Your task to perform on an android device: Is it going to rain tomorrow? Image 0: 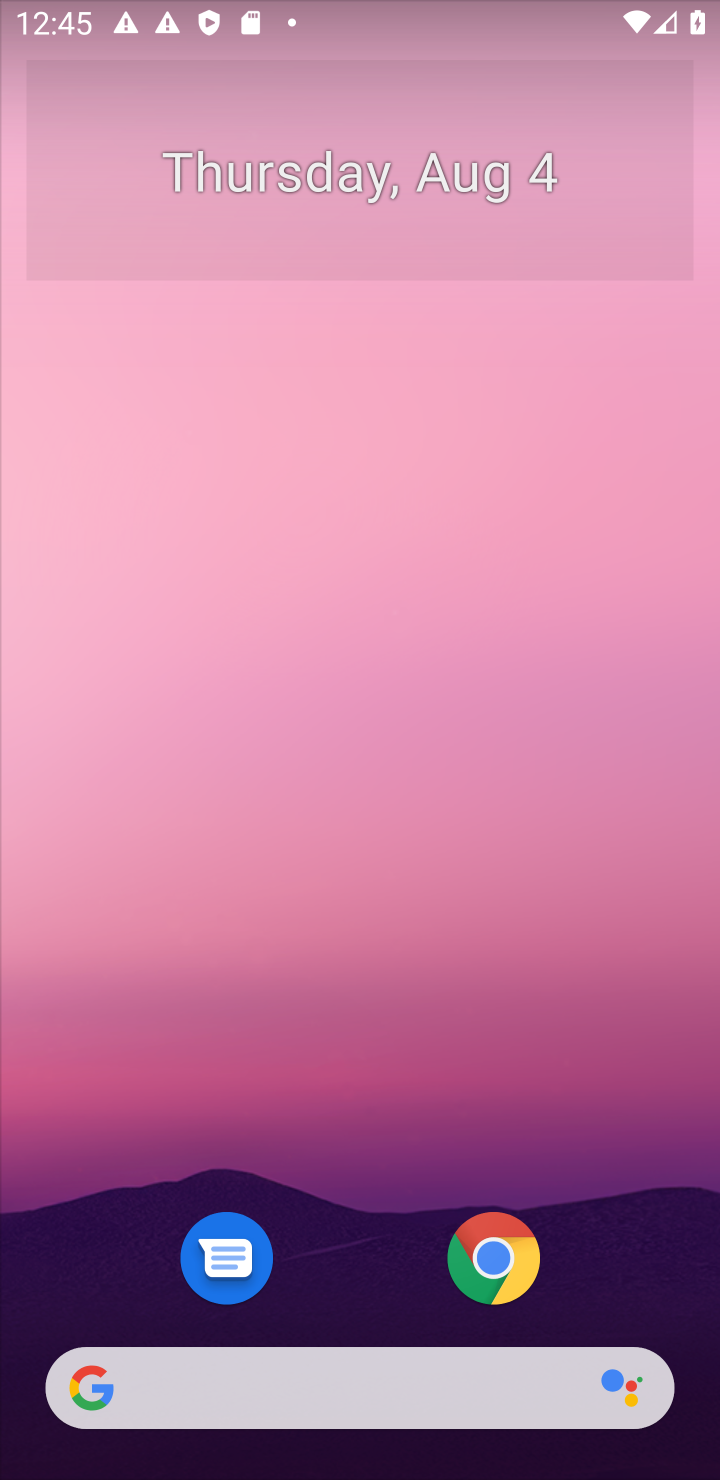
Step 0: drag from (373, 952) to (373, 273)
Your task to perform on an android device: Is it going to rain tomorrow? Image 1: 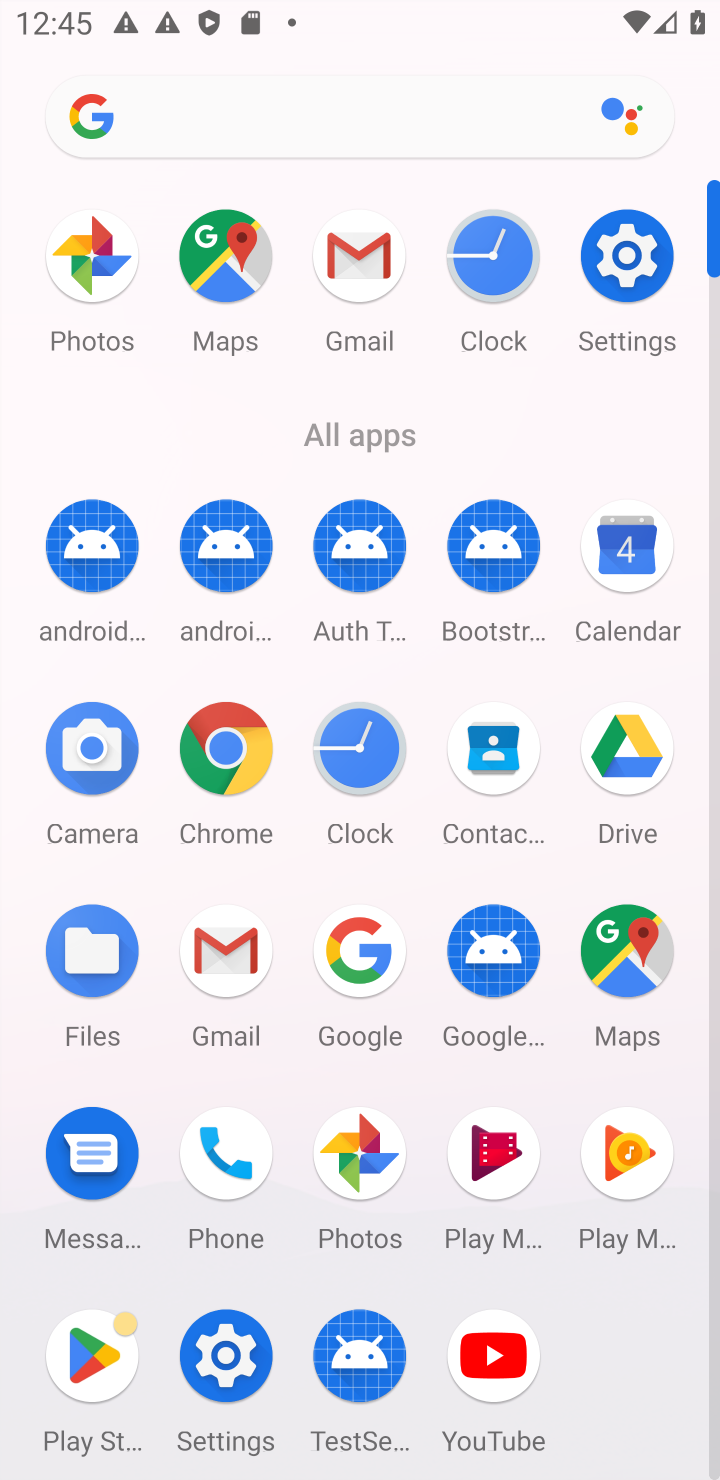
Step 1: click (359, 968)
Your task to perform on an android device: Is it going to rain tomorrow? Image 2: 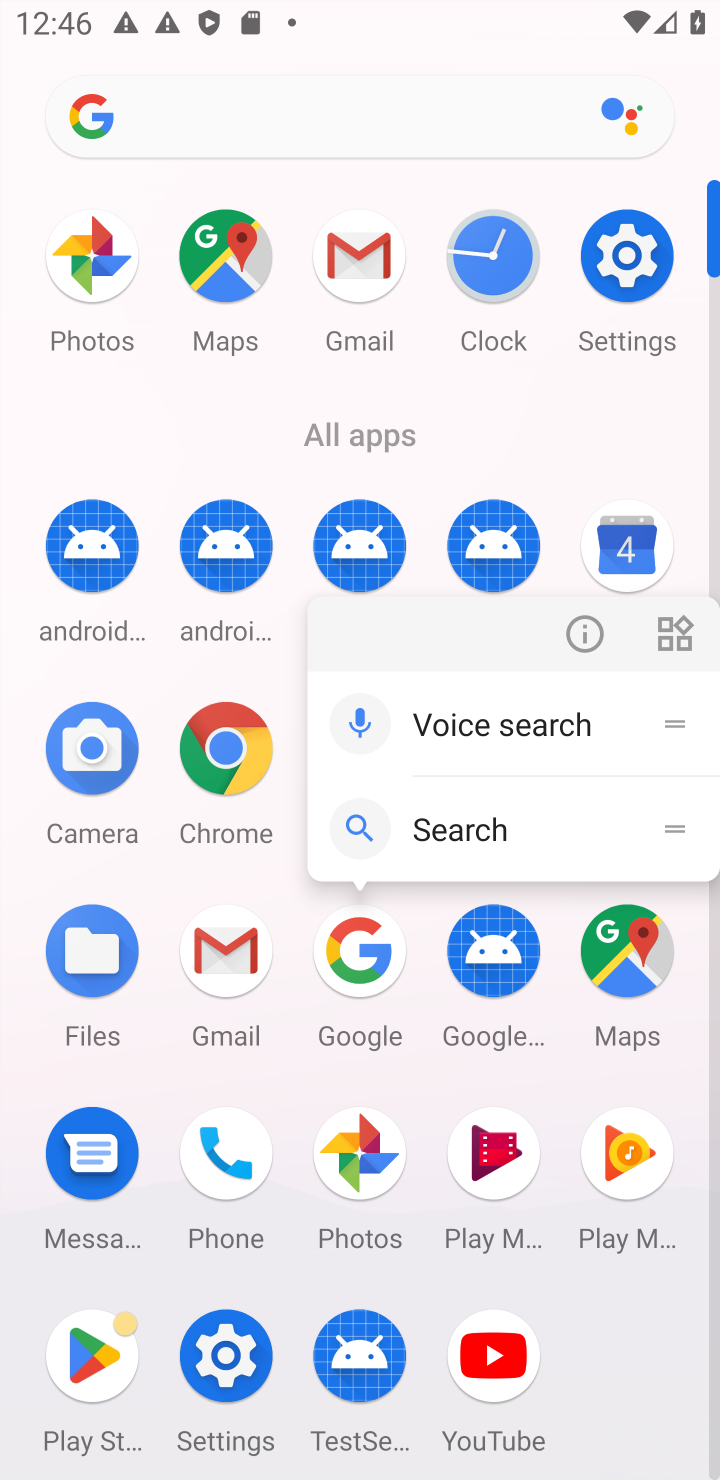
Step 2: click (371, 964)
Your task to perform on an android device: Is it going to rain tomorrow? Image 3: 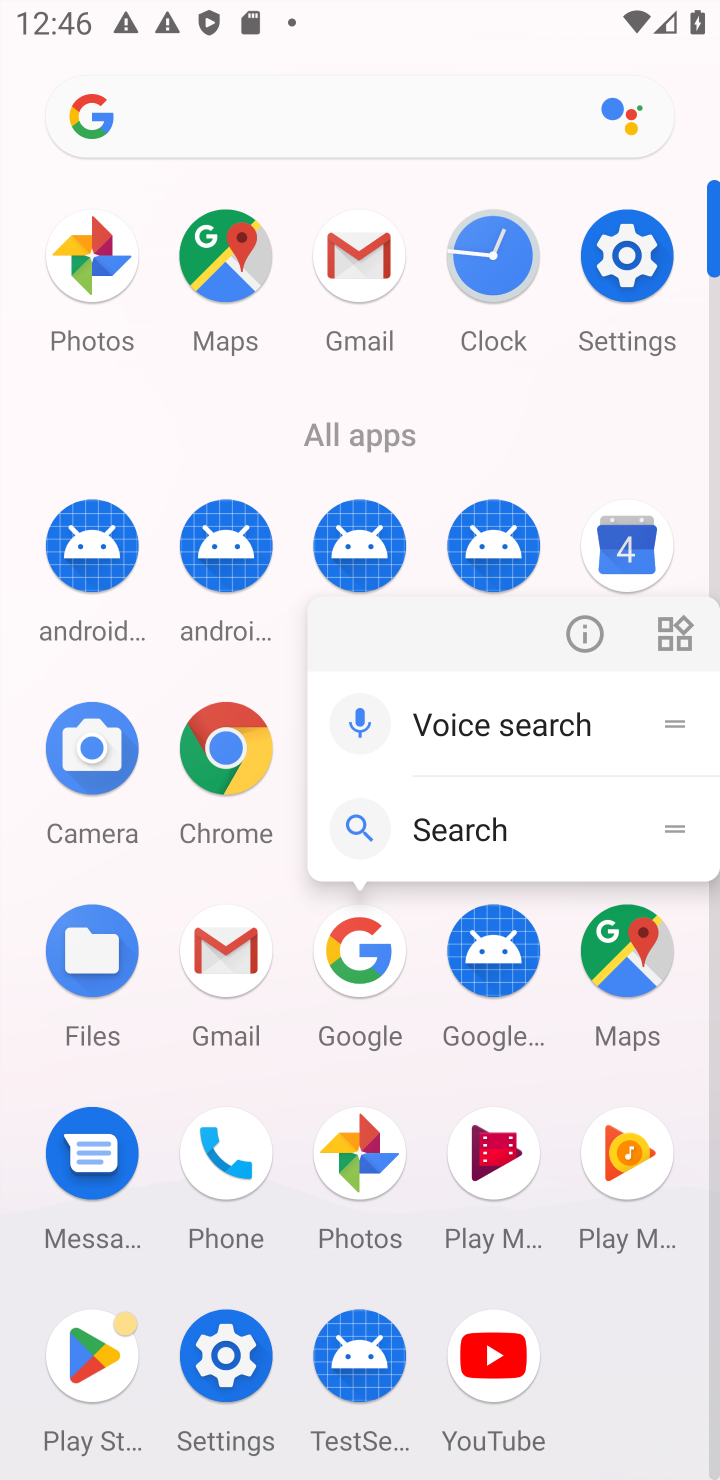
Step 3: click (371, 964)
Your task to perform on an android device: Is it going to rain tomorrow? Image 4: 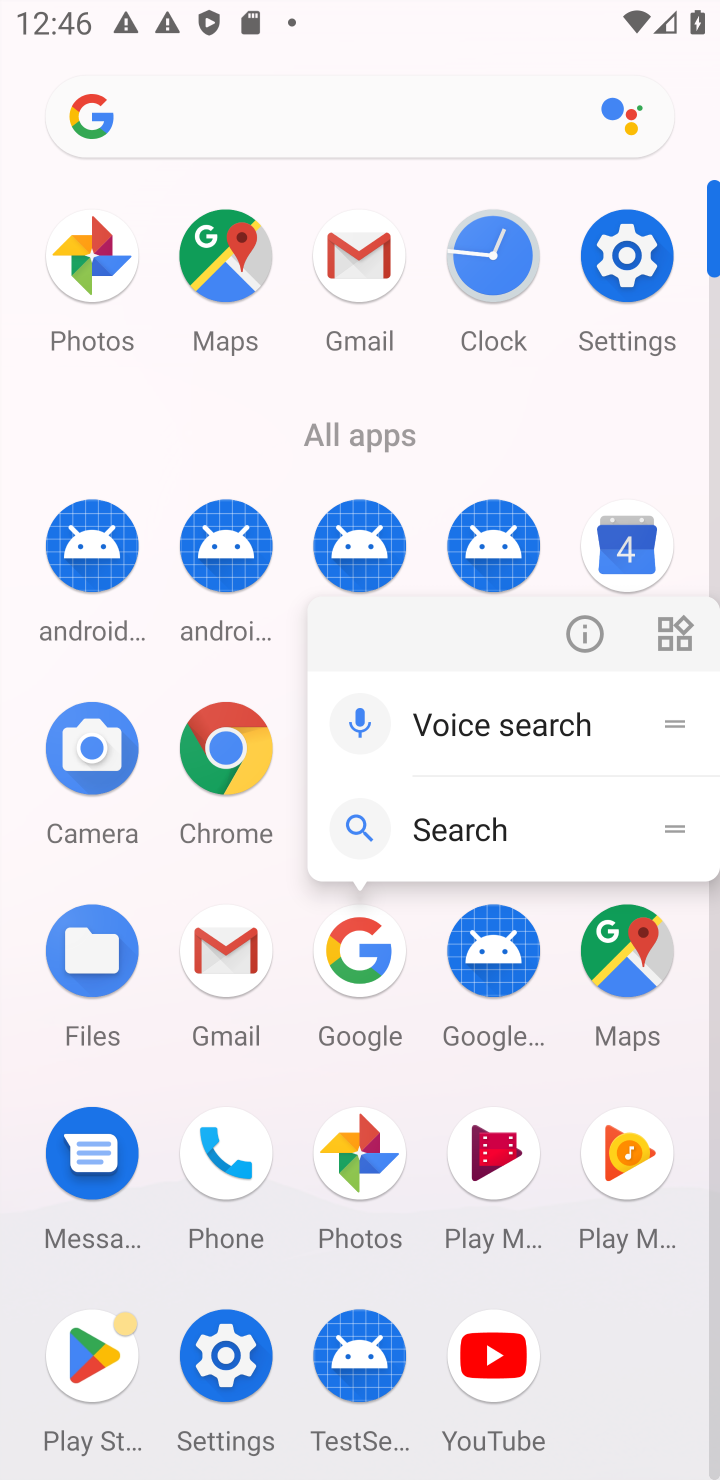
Step 4: click (347, 1048)
Your task to perform on an android device: Is it going to rain tomorrow? Image 5: 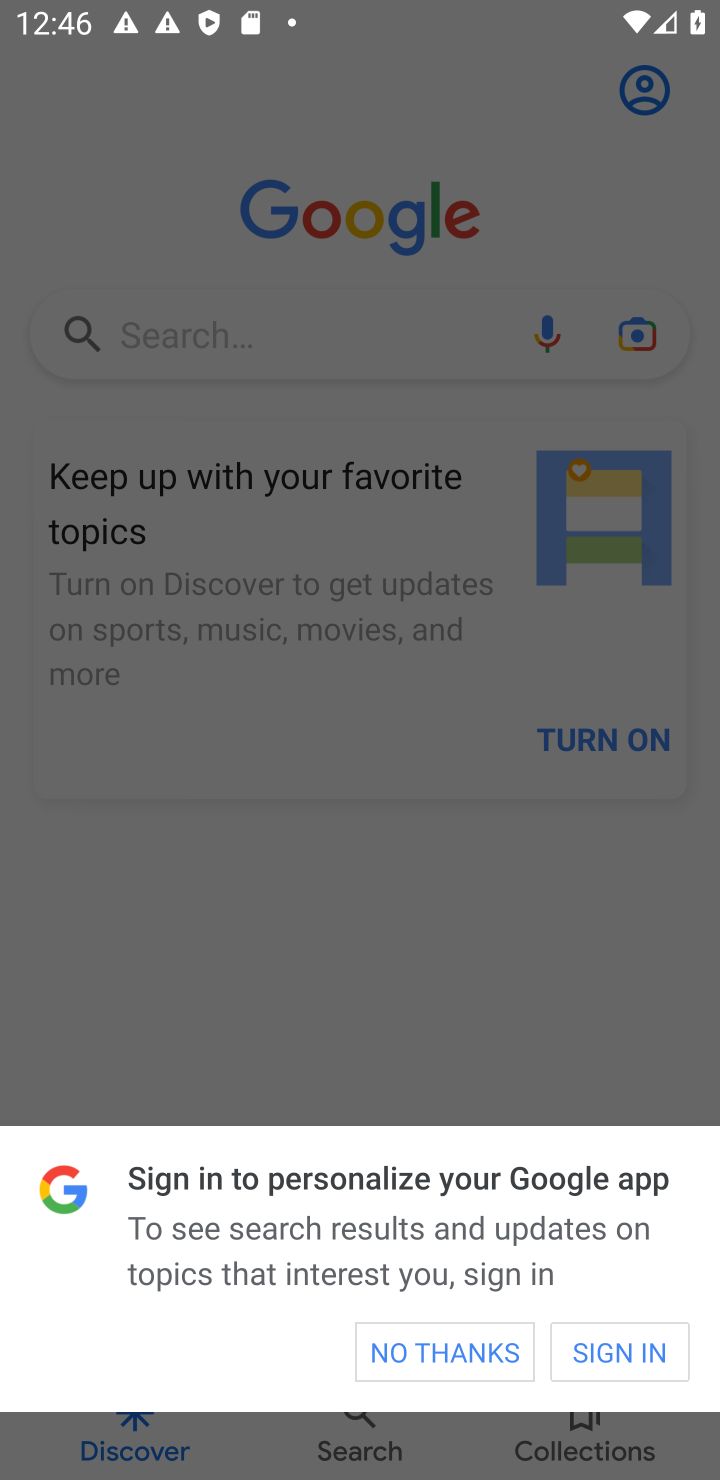
Step 5: click (293, 326)
Your task to perform on an android device: Is it going to rain tomorrow? Image 6: 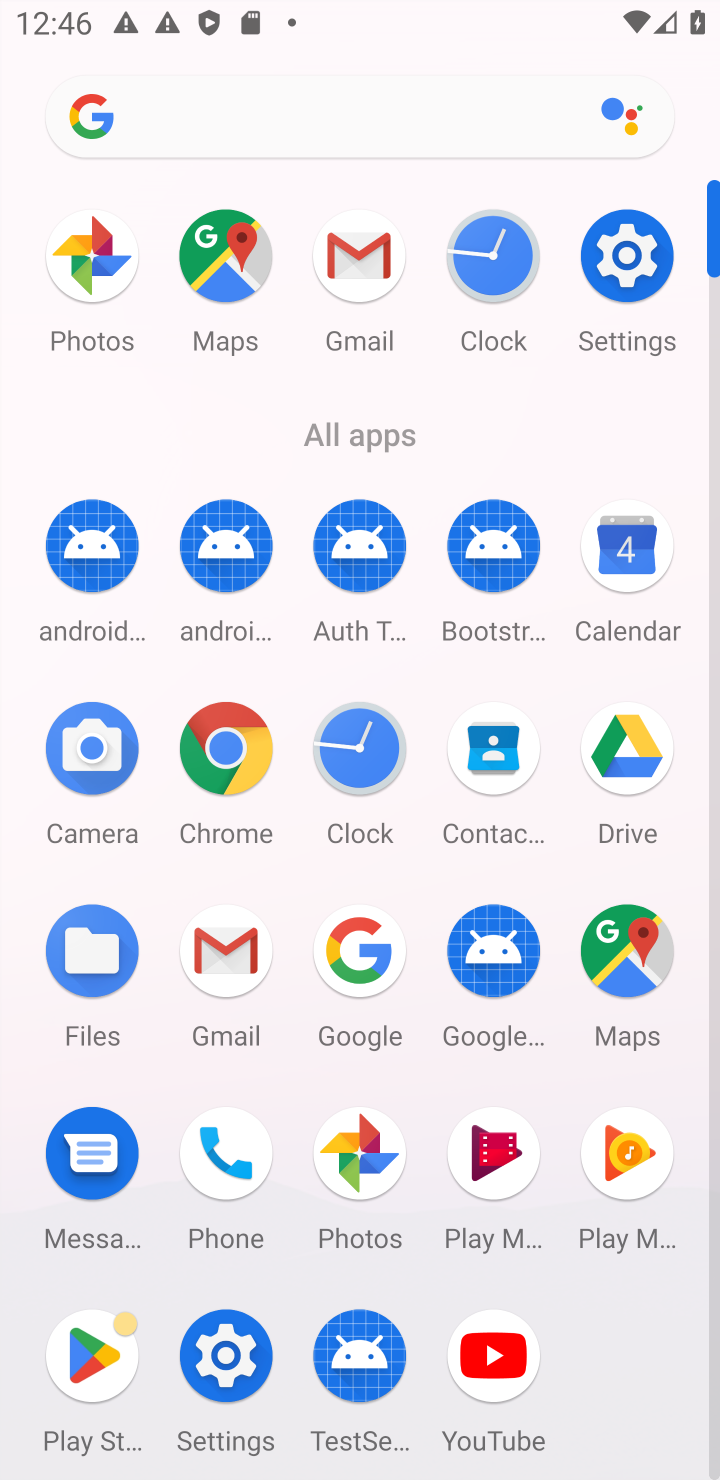
Step 6: click (351, 992)
Your task to perform on an android device: Is it going to rain tomorrow? Image 7: 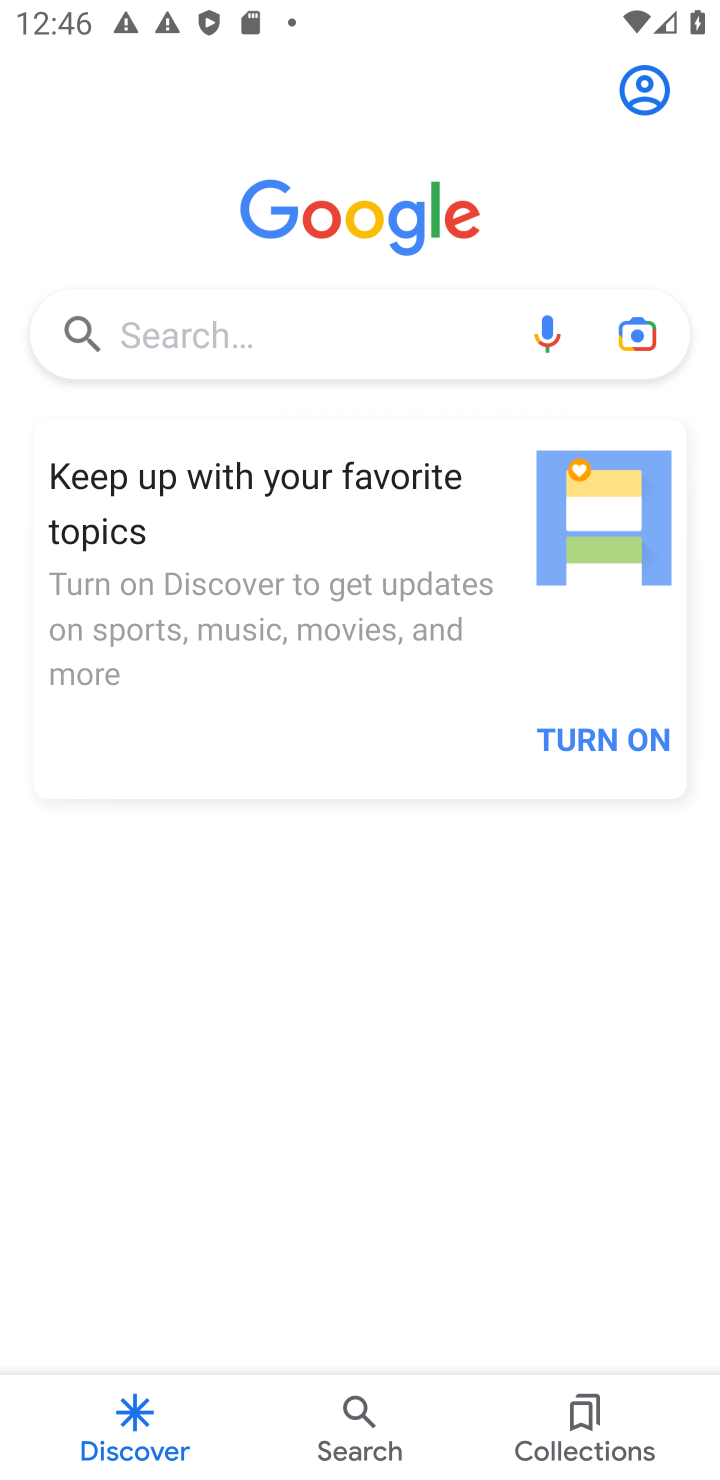
Step 7: click (287, 344)
Your task to perform on an android device: Is it going to rain tomorrow? Image 8: 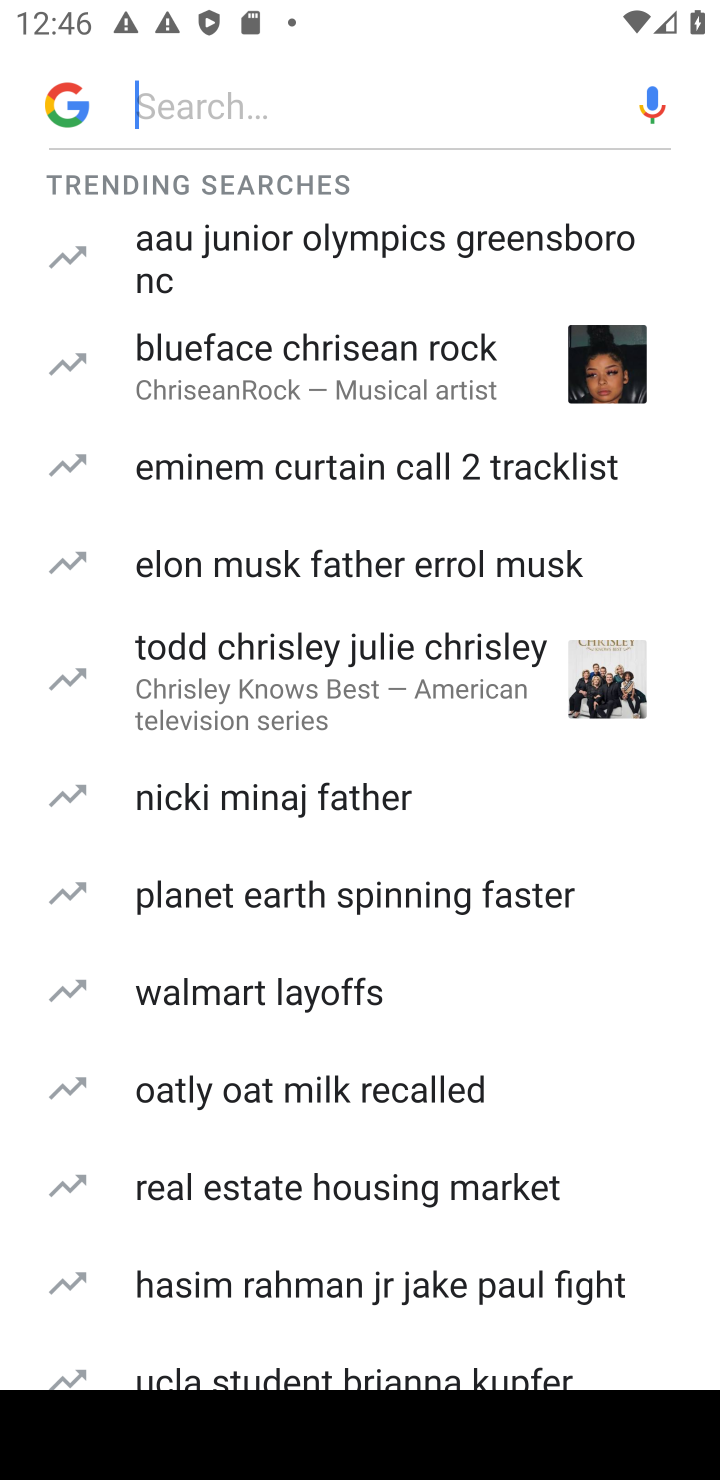
Step 8: type "wheather"
Your task to perform on an android device: Is it going to rain tomorrow? Image 9: 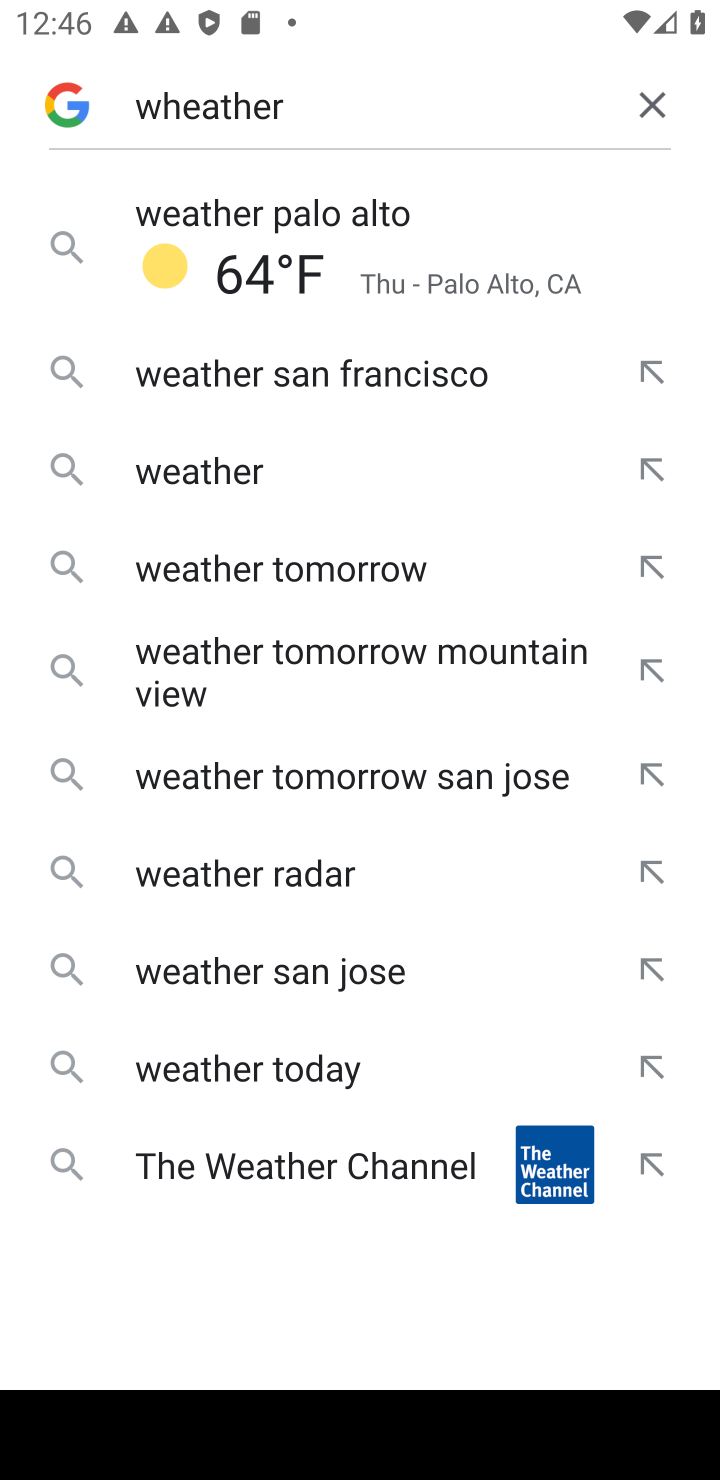
Step 9: click (405, 254)
Your task to perform on an android device: Is it going to rain tomorrow? Image 10: 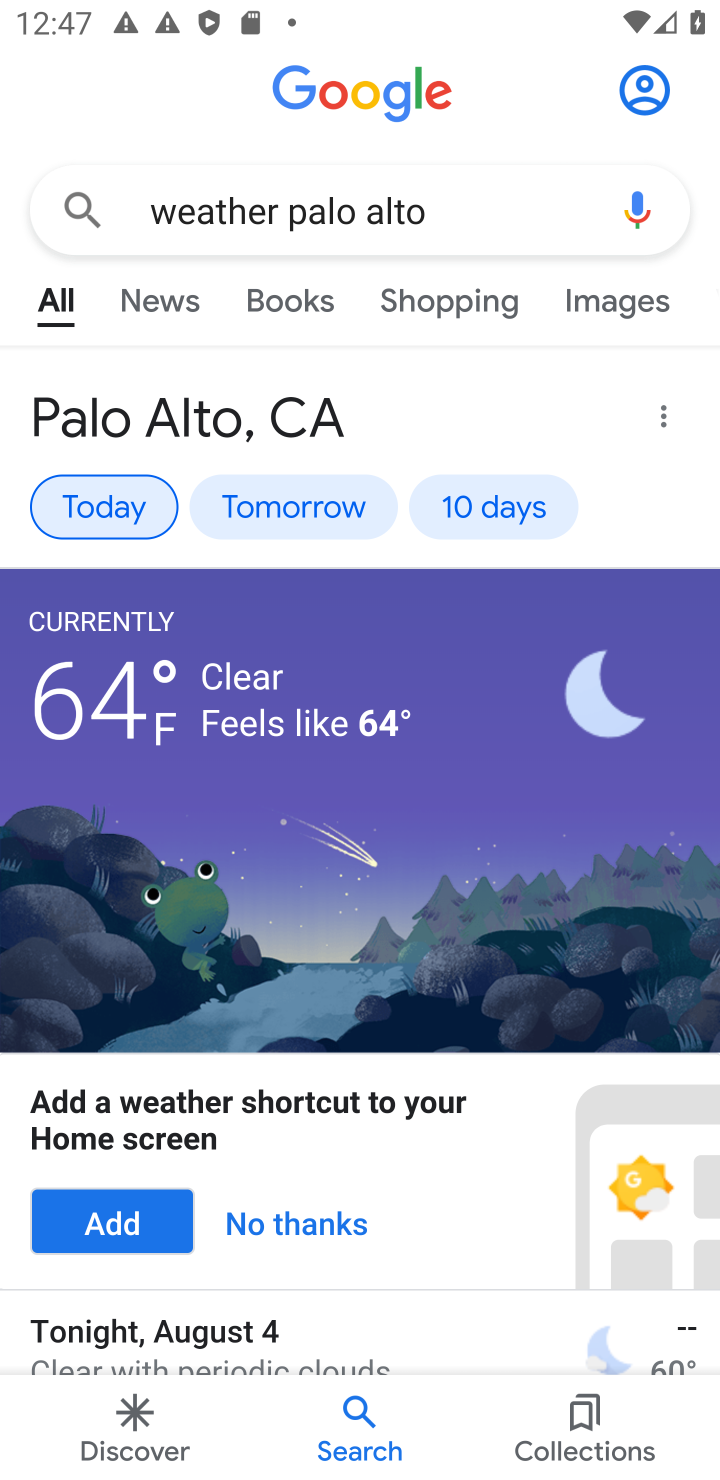
Step 10: click (281, 490)
Your task to perform on an android device: Is it going to rain tomorrow? Image 11: 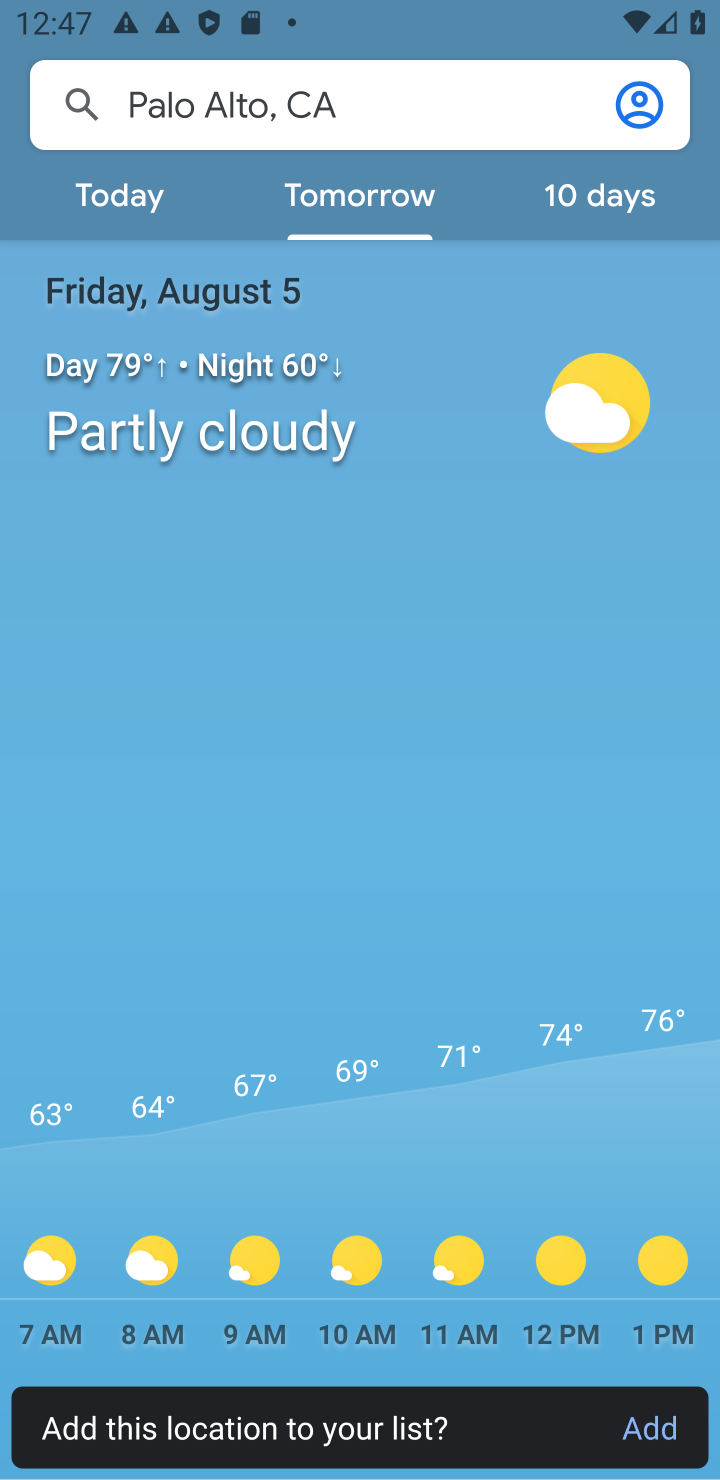
Step 11: task complete